Your task to perform on an android device: Search for seafood restaurants on Google Maps Image 0: 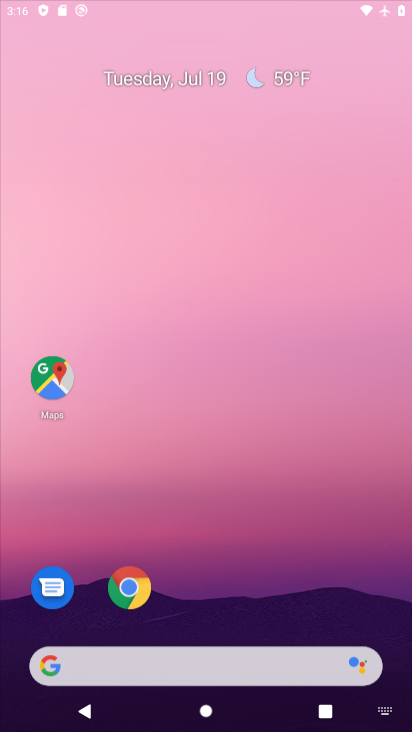
Step 0: press home button
Your task to perform on an android device: Search for seafood restaurants on Google Maps Image 1: 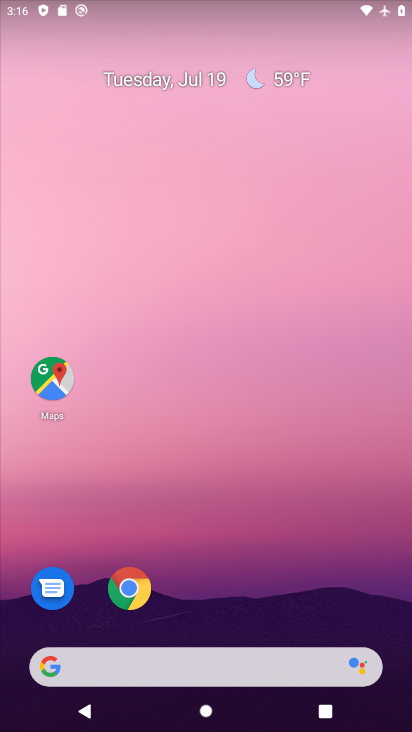
Step 1: drag from (220, 633) to (199, 39)
Your task to perform on an android device: Search for seafood restaurants on Google Maps Image 2: 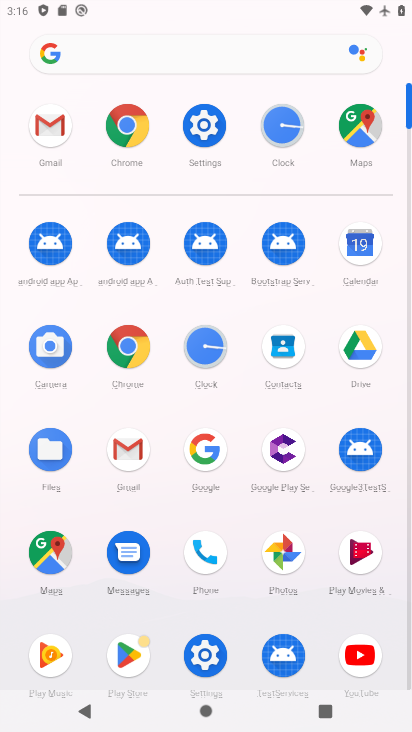
Step 2: click (357, 133)
Your task to perform on an android device: Search for seafood restaurants on Google Maps Image 3: 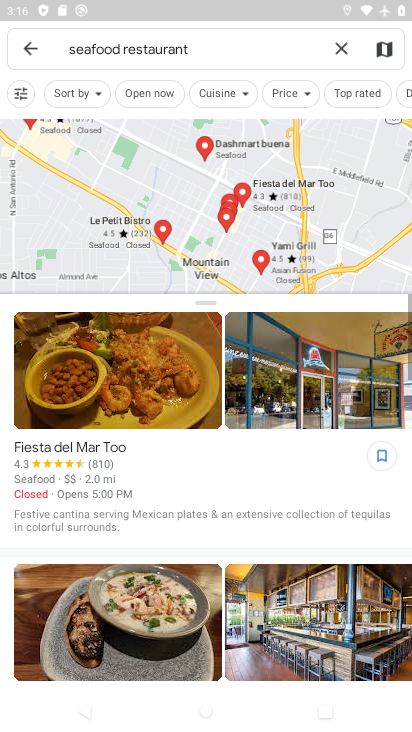
Step 3: click (340, 49)
Your task to perform on an android device: Search for seafood restaurants on Google Maps Image 4: 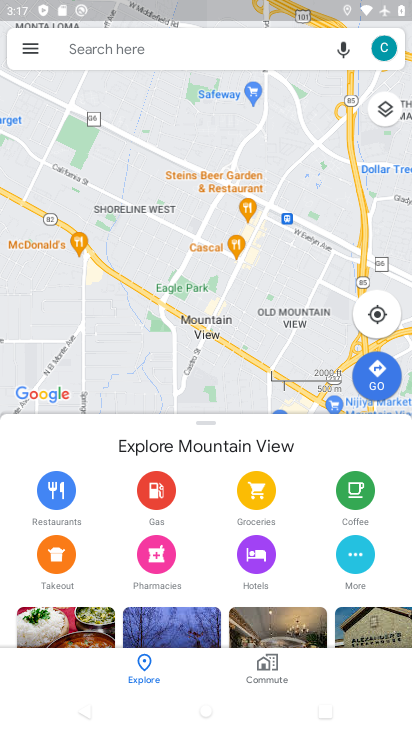
Step 4: click (152, 48)
Your task to perform on an android device: Search for seafood restaurants on Google Maps Image 5: 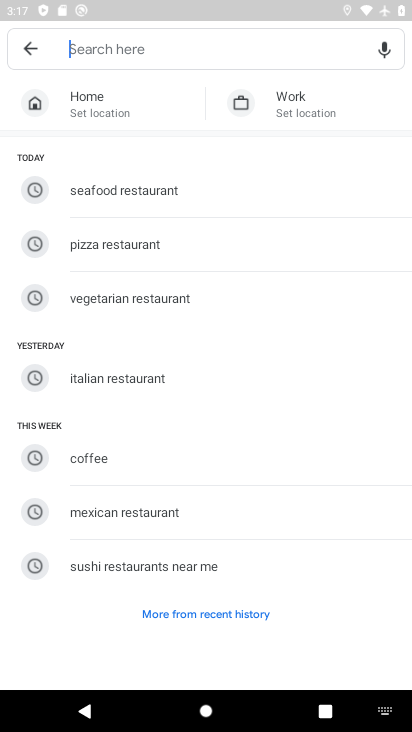
Step 5: click (122, 190)
Your task to perform on an android device: Search for seafood restaurants on Google Maps Image 6: 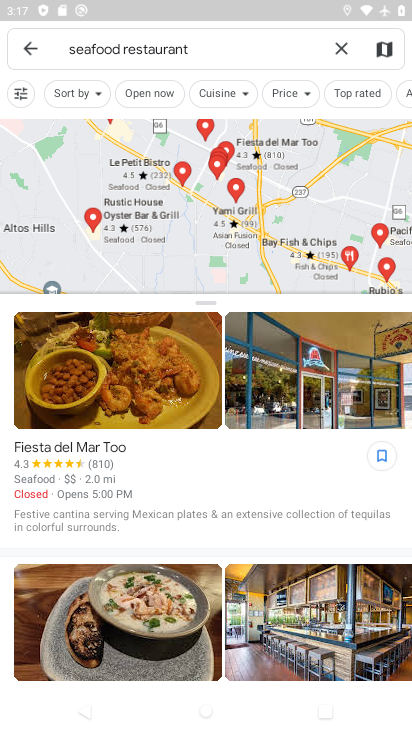
Step 6: task complete